Your task to perform on an android device: clear all cookies in the chrome app Image 0: 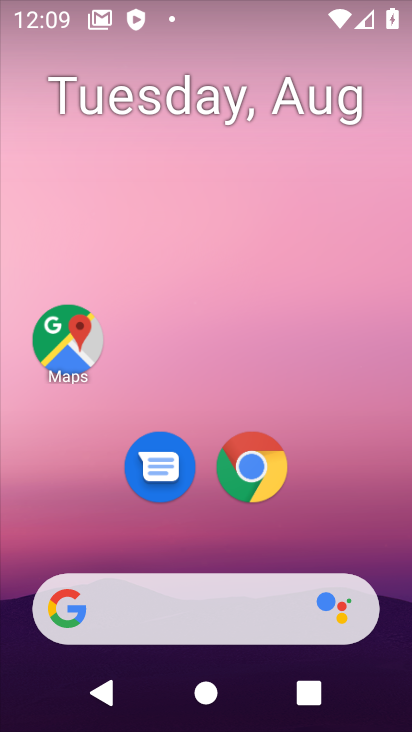
Step 0: press home button
Your task to perform on an android device: clear all cookies in the chrome app Image 1: 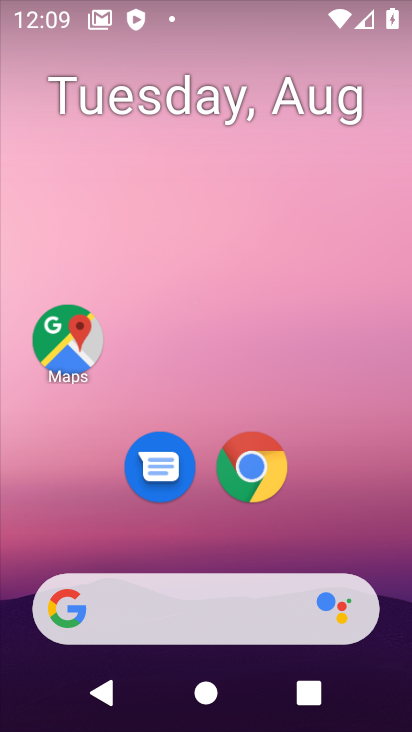
Step 1: drag from (373, 521) to (377, 75)
Your task to perform on an android device: clear all cookies in the chrome app Image 2: 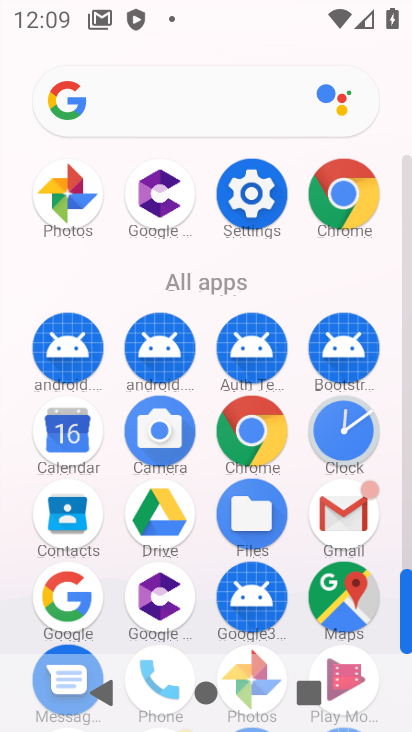
Step 2: click (249, 429)
Your task to perform on an android device: clear all cookies in the chrome app Image 3: 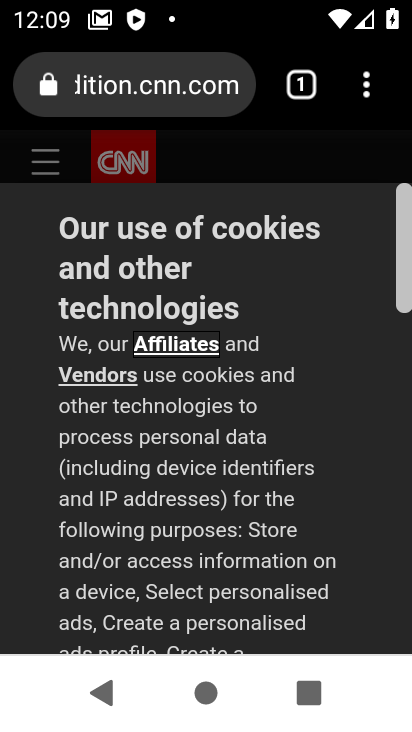
Step 3: click (366, 86)
Your task to perform on an android device: clear all cookies in the chrome app Image 4: 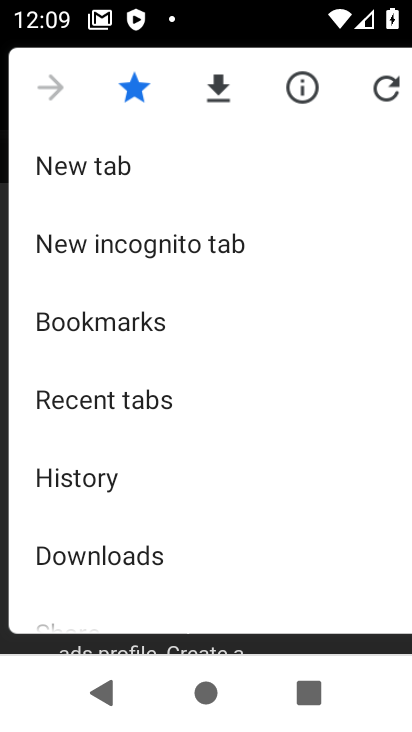
Step 4: drag from (291, 445) to (308, 262)
Your task to perform on an android device: clear all cookies in the chrome app Image 5: 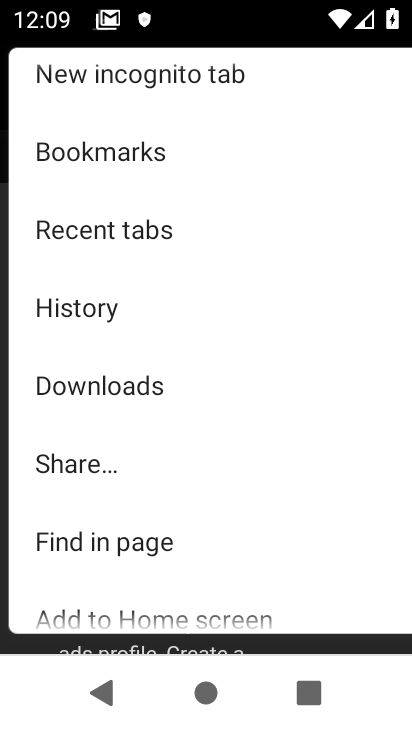
Step 5: drag from (285, 482) to (293, 273)
Your task to perform on an android device: clear all cookies in the chrome app Image 6: 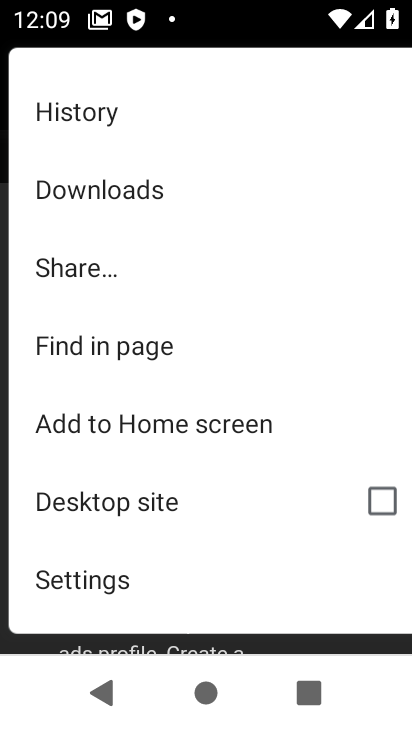
Step 6: drag from (301, 504) to (301, 327)
Your task to perform on an android device: clear all cookies in the chrome app Image 7: 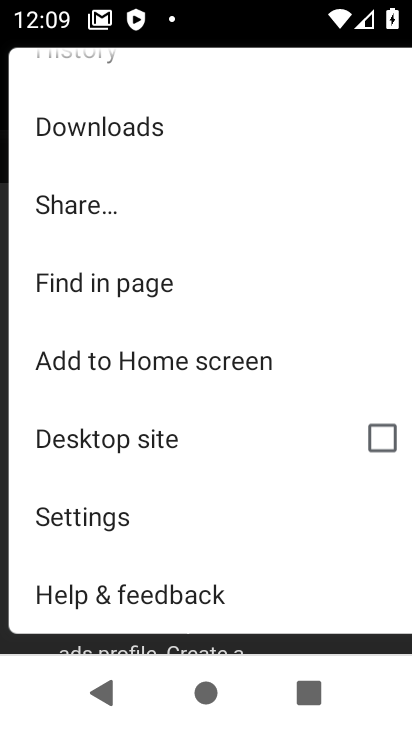
Step 7: click (142, 531)
Your task to perform on an android device: clear all cookies in the chrome app Image 8: 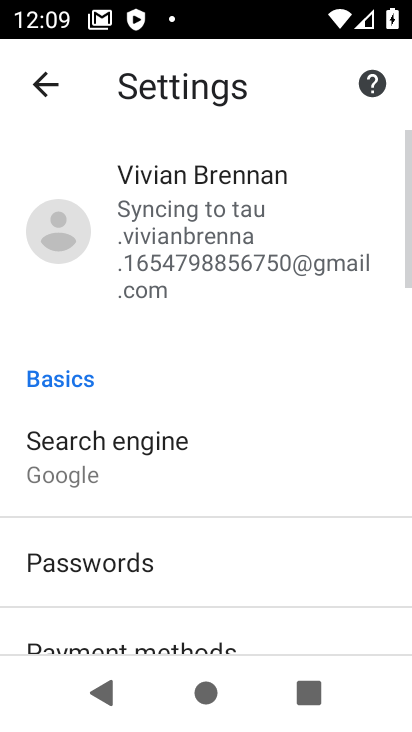
Step 8: drag from (306, 515) to (300, 380)
Your task to perform on an android device: clear all cookies in the chrome app Image 9: 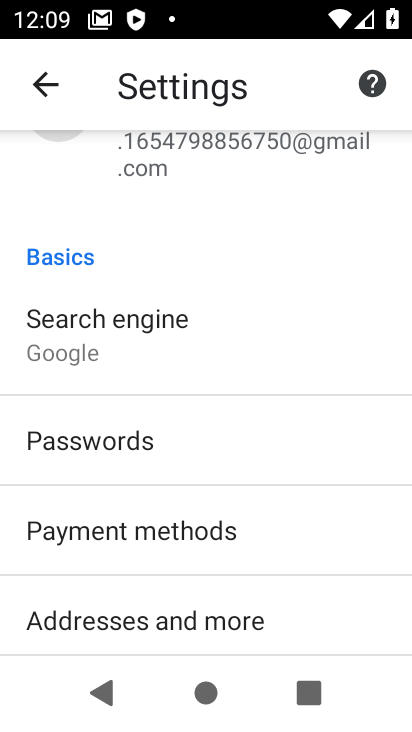
Step 9: drag from (297, 531) to (287, 370)
Your task to perform on an android device: clear all cookies in the chrome app Image 10: 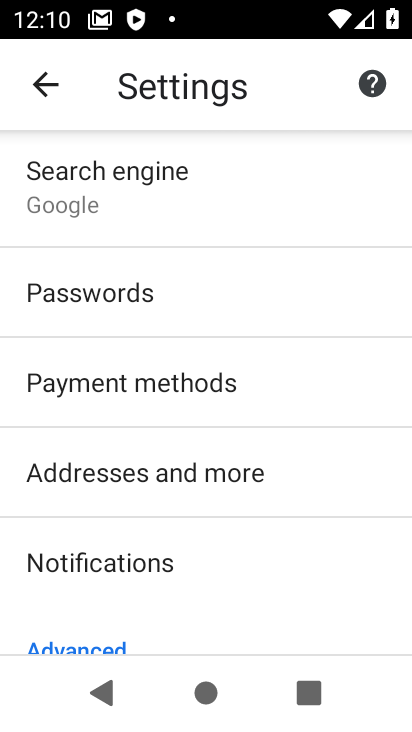
Step 10: drag from (312, 562) to (304, 438)
Your task to perform on an android device: clear all cookies in the chrome app Image 11: 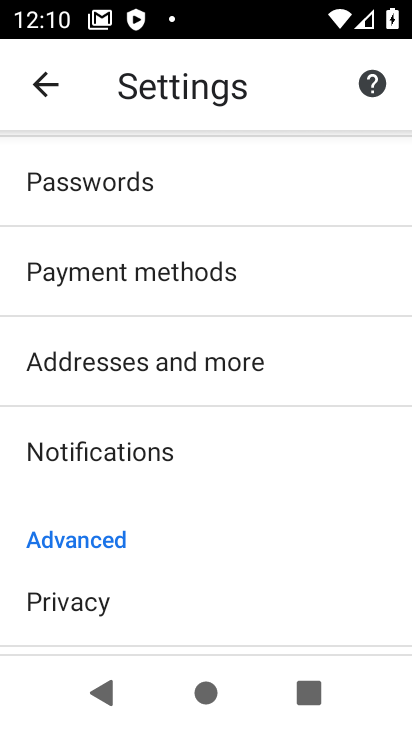
Step 11: drag from (277, 583) to (285, 410)
Your task to perform on an android device: clear all cookies in the chrome app Image 12: 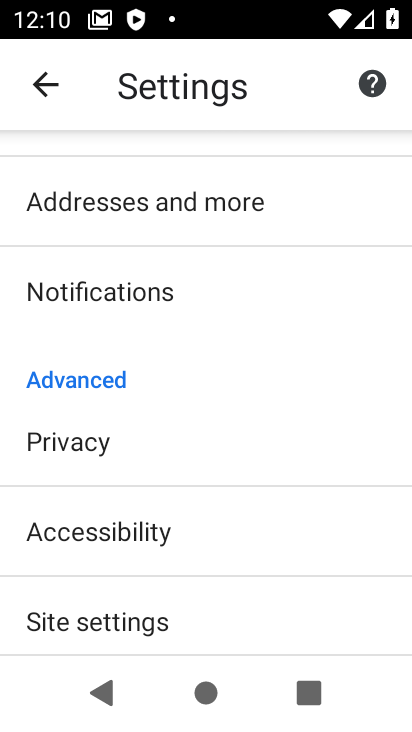
Step 12: click (230, 448)
Your task to perform on an android device: clear all cookies in the chrome app Image 13: 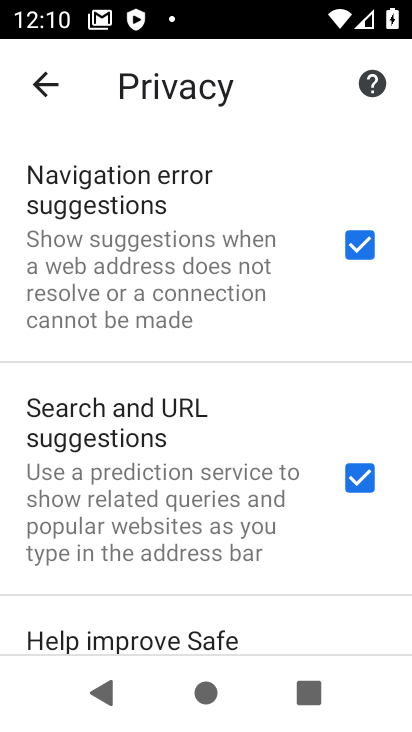
Step 13: drag from (302, 577) to (315, 447)
Your task to perform on an android device: clear all cookies in the chrome app Image 14: 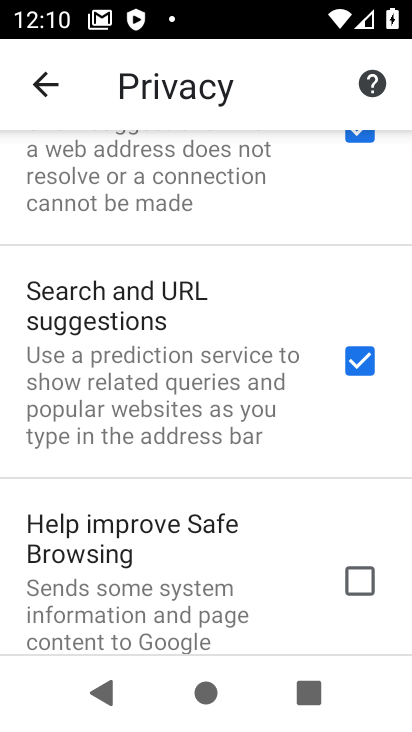
Step 14: drag from (270, 572) to (283, 407)
Your task to perform on an android device: clear all cookies in the chrome app Image 15: 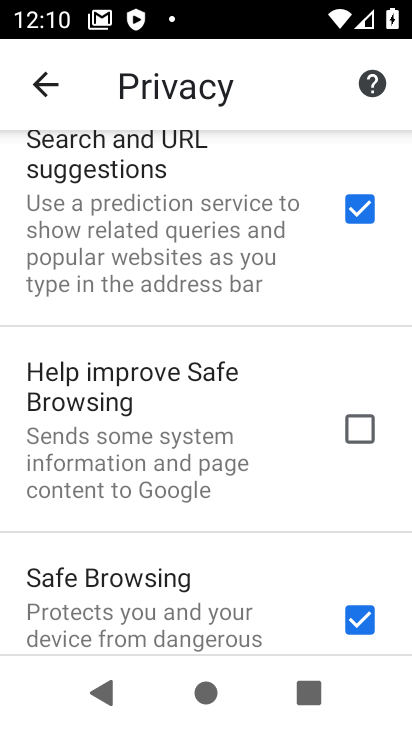
Step 15: drag from (239, 552) to (254, 437)
Your task to perform on an android device: clear all cookies in the chrome app Image 16: 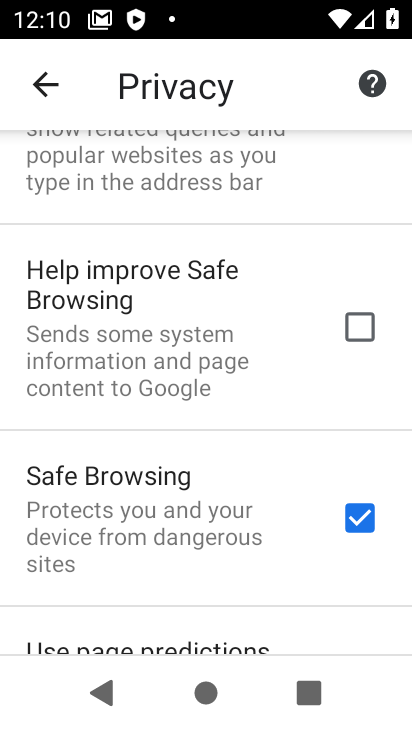
Step 16: drag from (298, 583) to (300, 470)
Your task to perform on an android device: clear all cookies in the chrome app Image 17: 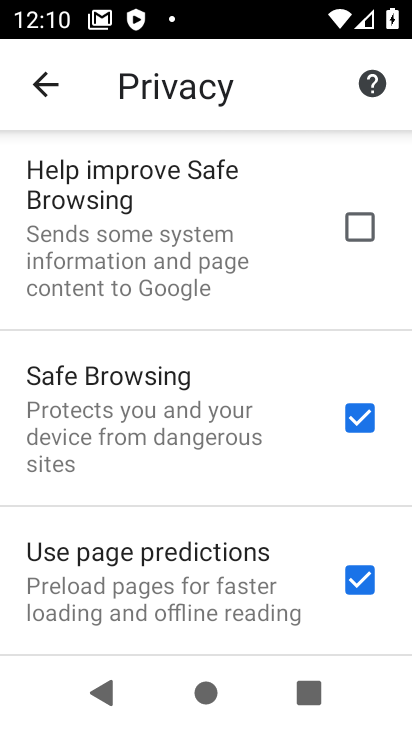
Step 17: drag from (267, 636) to (275, 476)
Your task to perform on an android device: clear all cookies in the chrome app Image 18: 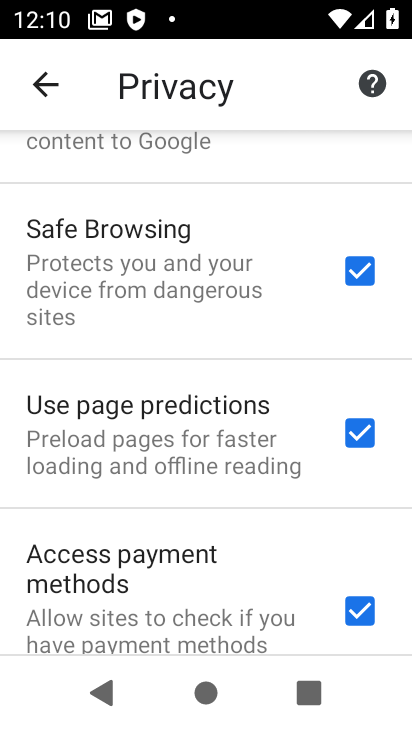
Step 18: drag from (250, 593) to (242, 461)
Your task to perform on an android device: clear all cookies in the chrome app Image 19: 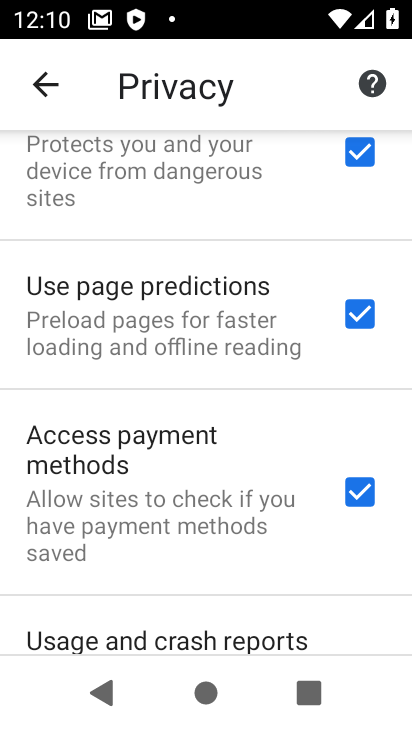
Step 19: drag from (241, 585) to (252, 410)
Your task to perform on an android device: clear all cookies in the chrome app Image 20: 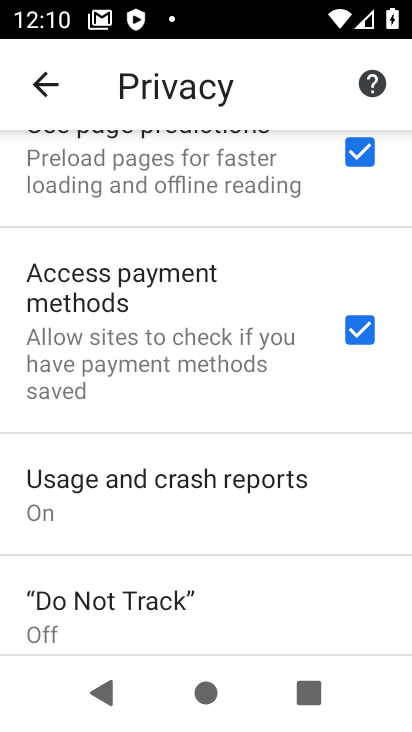
Step 20: drag from (256, 541) to (251, 375)
Your task to perform on an android device: clear all cookies in the chrome app Image 21: 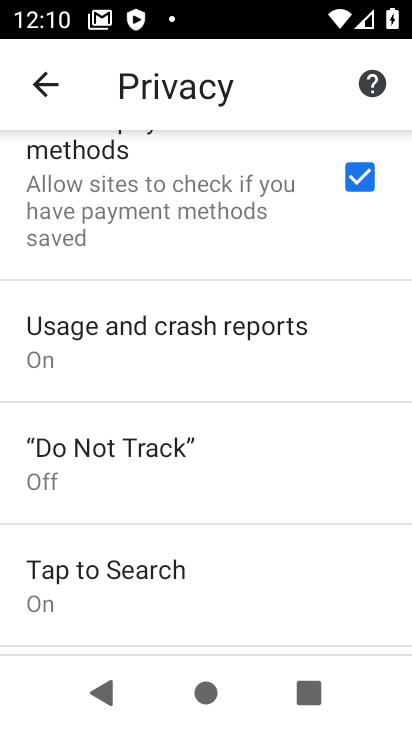
Step 21: drag from (254, 580) to (269, 388)
Your task to perform on an android device: clear all cookies in the chrome app Image 22: 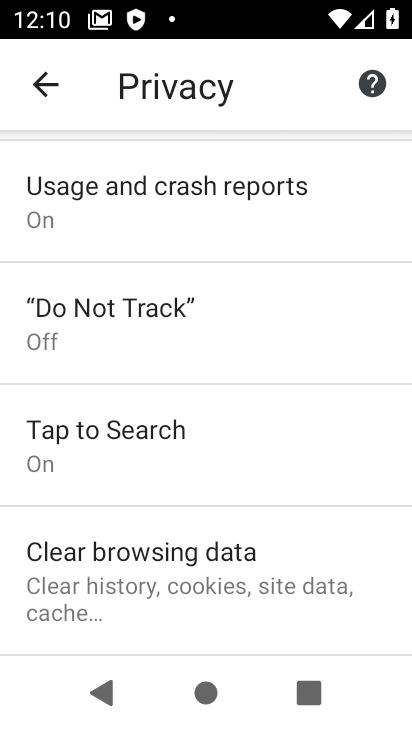
Step 22: click (269, 585)
Your task to perform on an android device: clear all cookies in the chrome app Image 23: 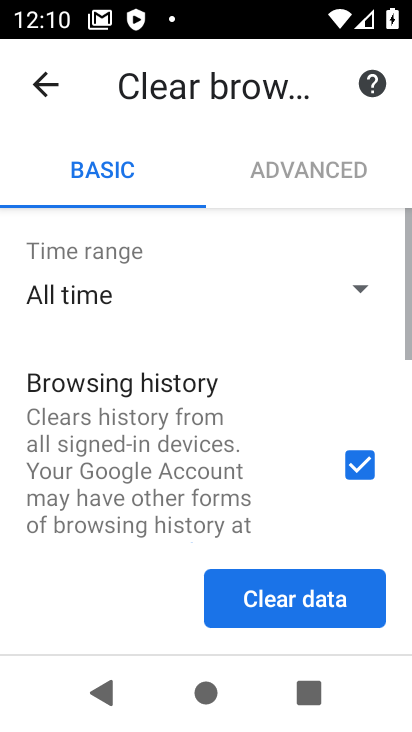
Step 23: click (316, 613)
Your task to perform on an android device: clear all cookies in the chrome app Image 24: 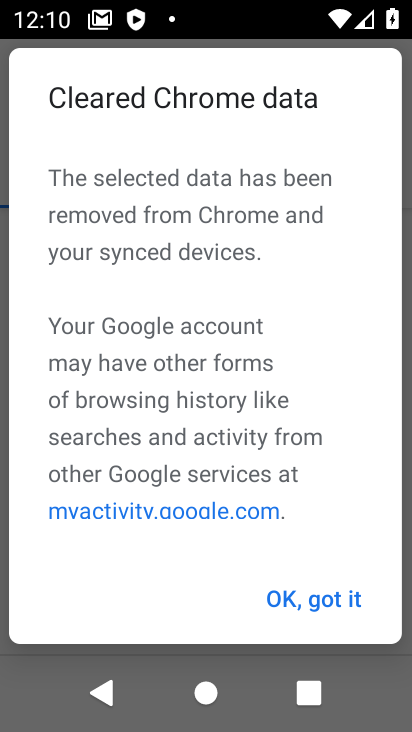
Step 24: click (322, 602)
Your task to perform on an android device: clear all cookies in the chrome app Image 25: 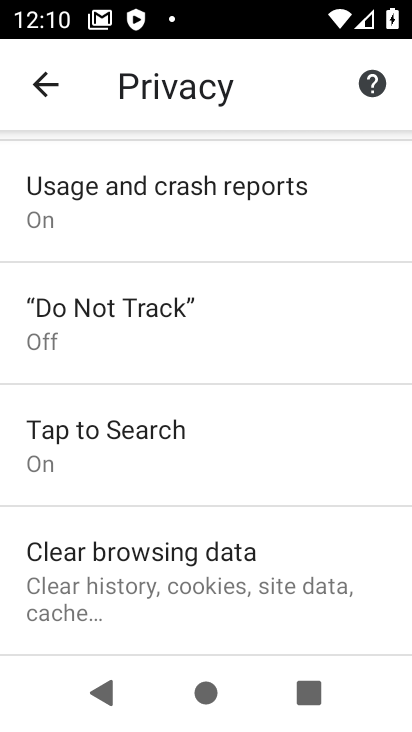
Step 25: task complete